Your task to perform on an android device: open app "Walmart Shopping & Grocery" Image 0: 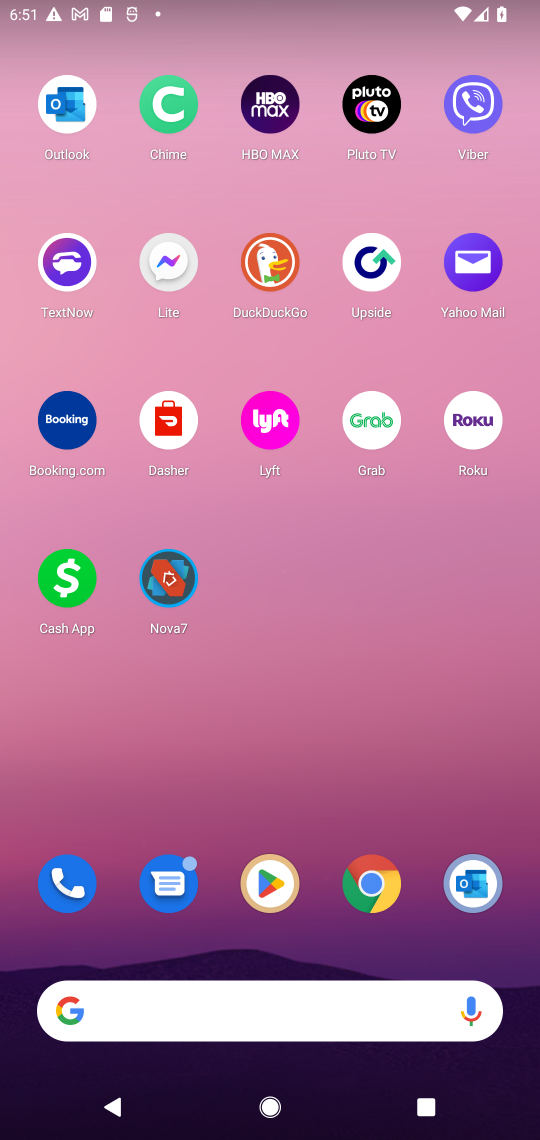
Step 0: click (289, 882)
Your task to perform on an android device: open app "Walmart Shopping & Grocery" Image 1: 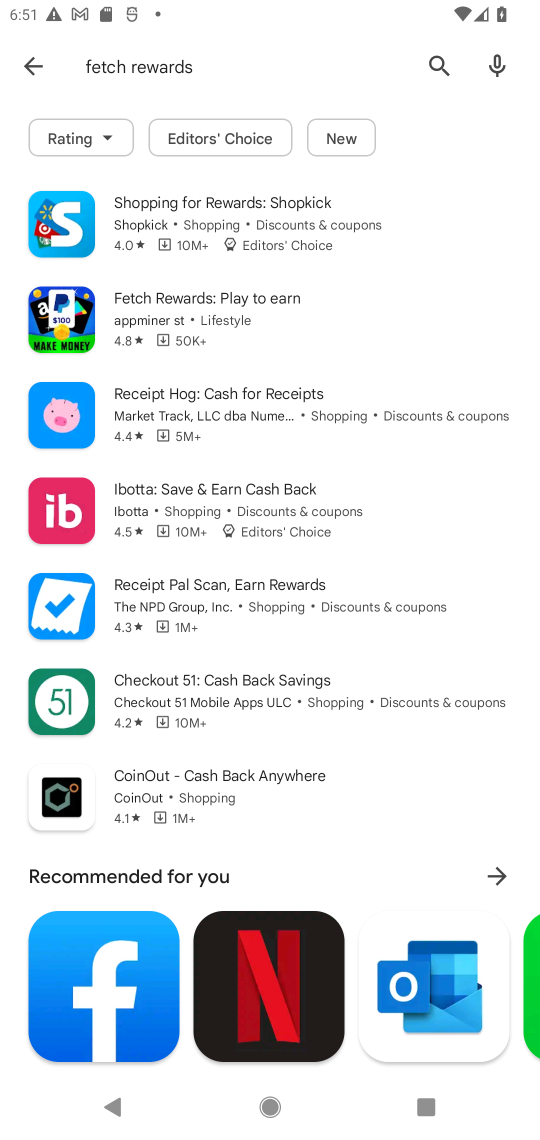
Step 1: click (426, 55)
Your task to perform on an android device: open app "Walmart Shopping & Grocery" Image 2: 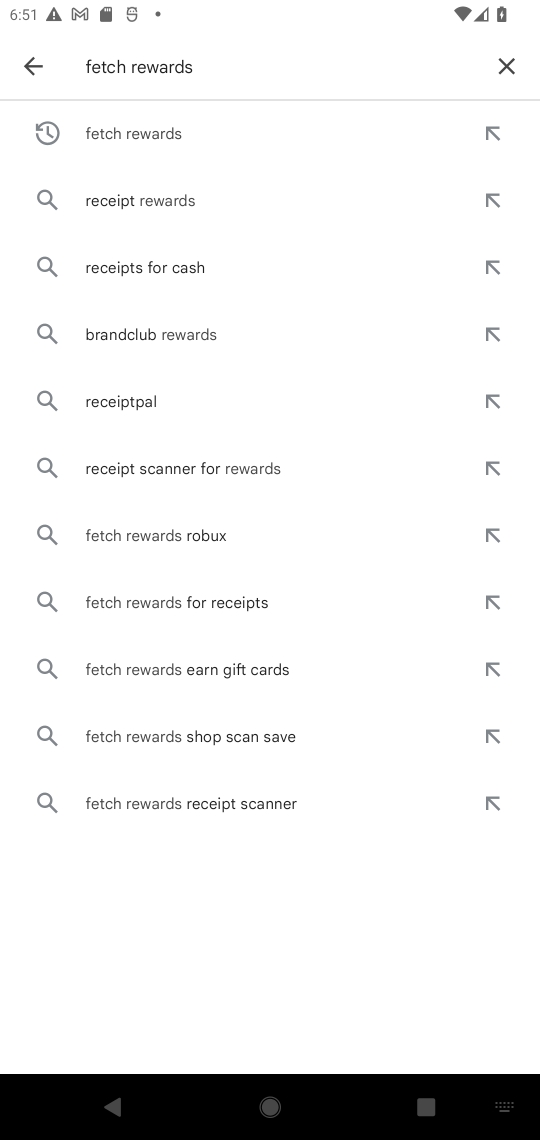
Step 2: click (503, 76)
Your task to perform on an android device: open app "Walmart Shopping & Grocery" Image 3: 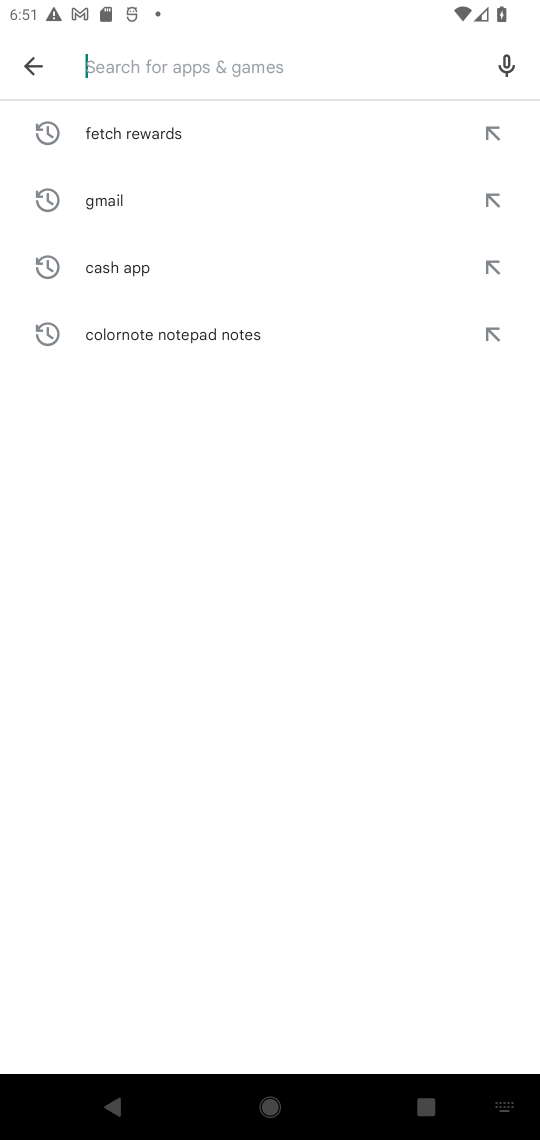
Step 3: type "Walmart Shopping & Grocery"
Your task to perform on an android device: open app "Walmart Shopping & Grocery" Image 4: 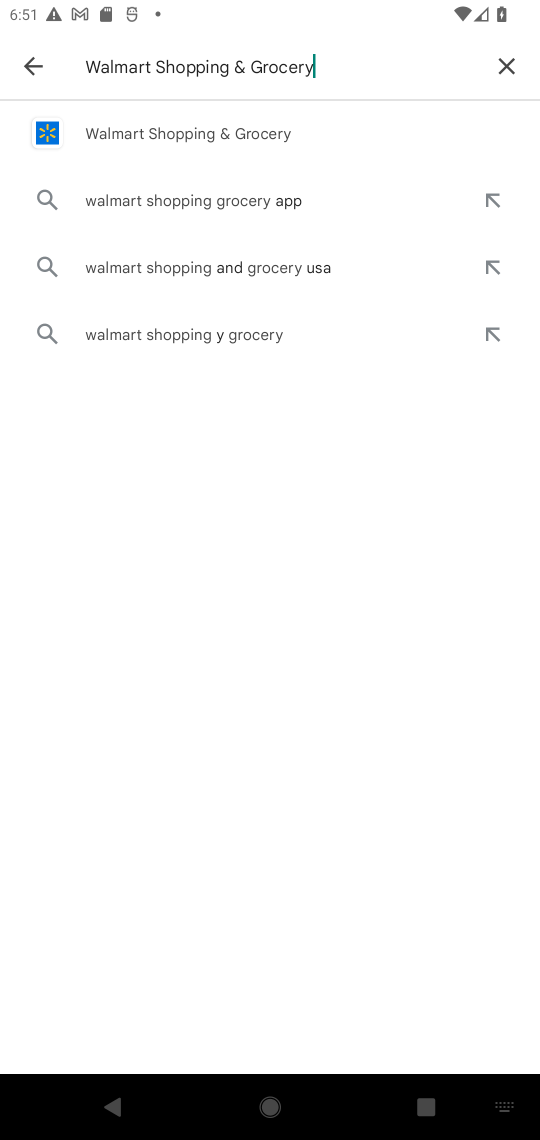
Step 4: click (206, 136)
Your task to perform on an android device: open app "Walmart Shopping & Grocery" Image 5: 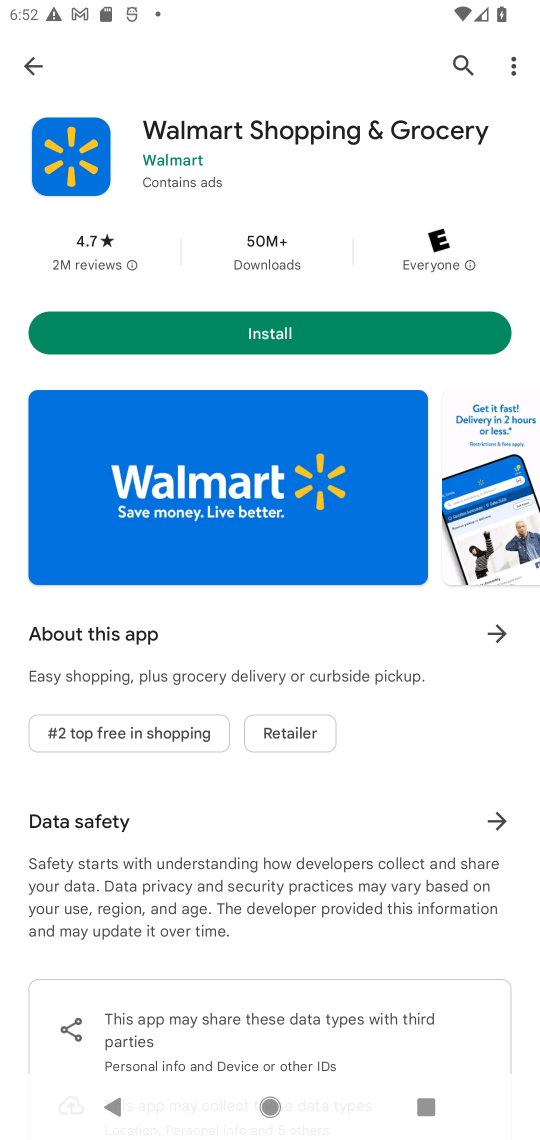
Step 5: task complete